Your task to perform on an android device: Go to Yahoo.com Image 0: 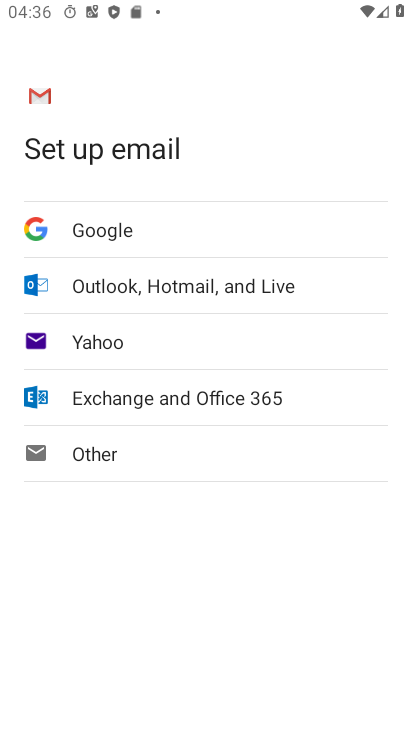
Step 0: press home button
Your task to perform on an android device: Go to Yahoo.com Image 1: 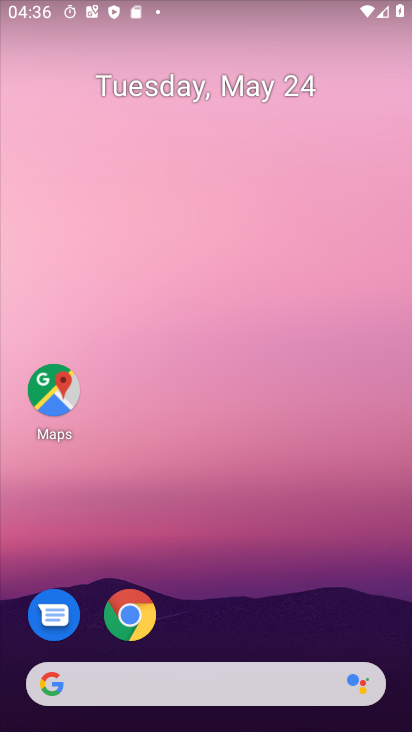
Step 1: click (114, 605)
Your task to perform on an android device: Go to Yahoo.com Image 2: 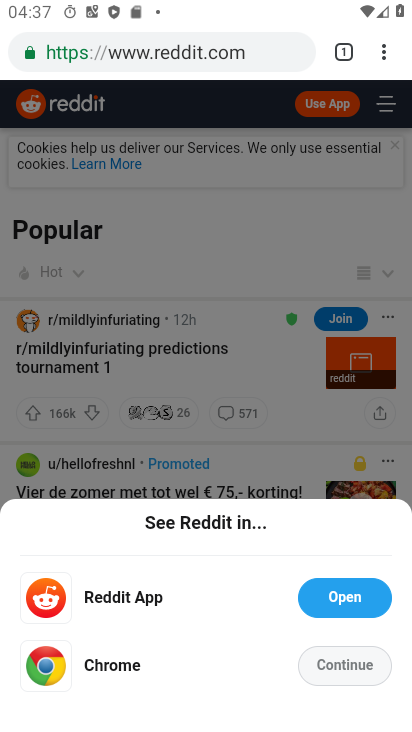
Step 2: click (340, 54)
Your task to perform on an android device: Go to Yahoo.com Image 3: 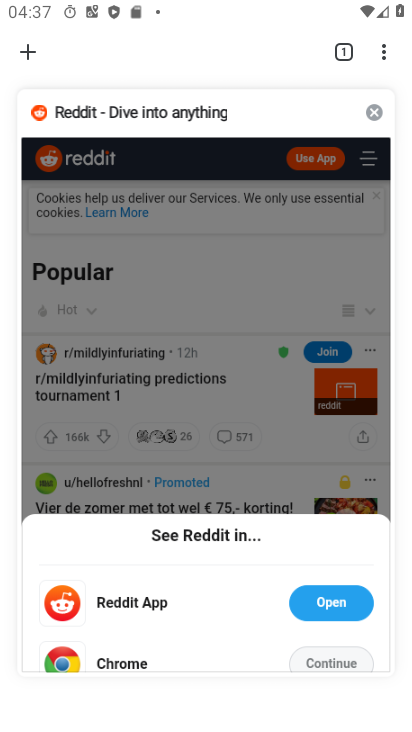
Step 3: click (11, 48)
Your task to perform on an android device: Go to Yahoo.com Image 4: 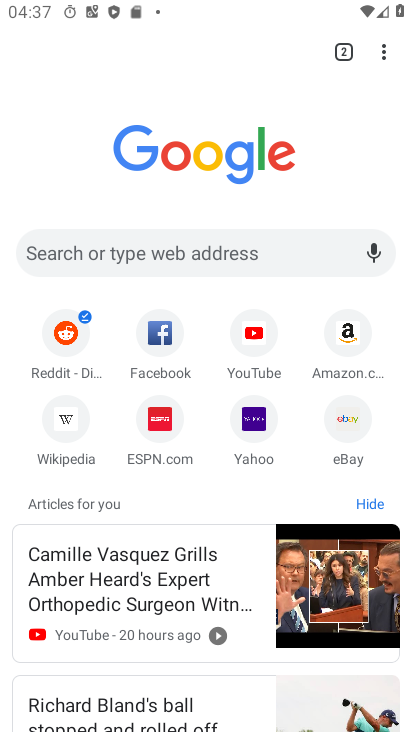
Step 4: click (256, 416)
Your task to perform on an android device: Go to Yahoo.com Image 5: 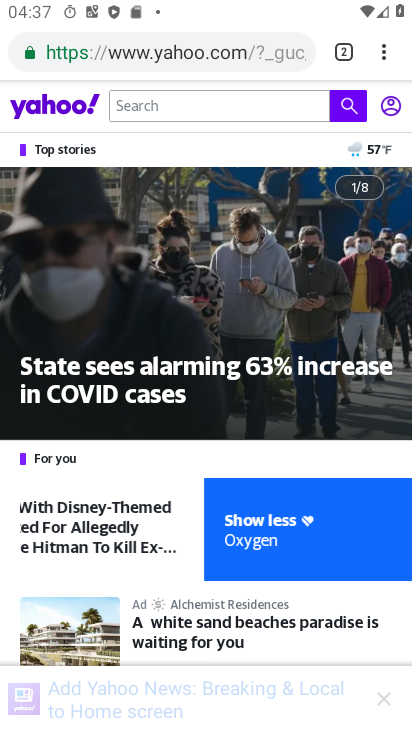
Step 5: task complete